Your task to perform on an android device: see tabs open on other devices in the chrome app Image 0: 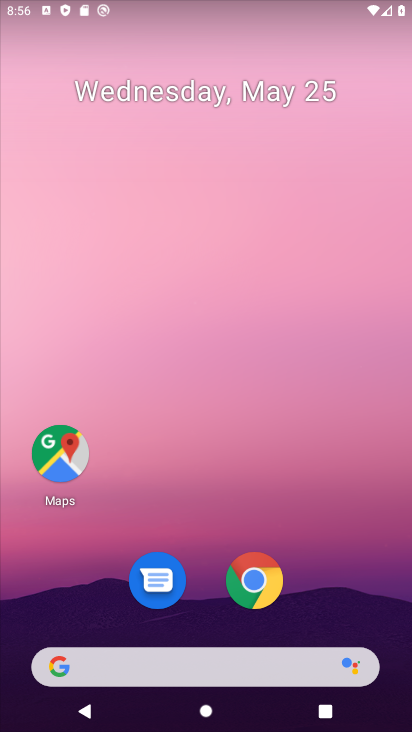
Step 0: press home button
Your task to perform on an android device: see tabs open on other devices in the chrome app Image 1: 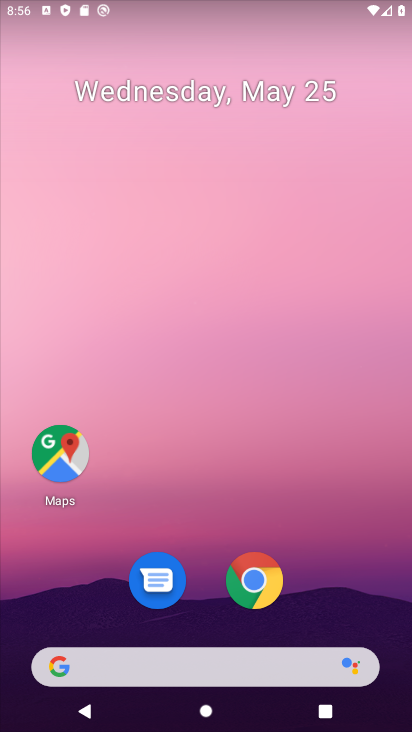
Step 1: click (255, 580)
Your task to perform on an android device: see tabs open on other devices in the chrome app Image 2: 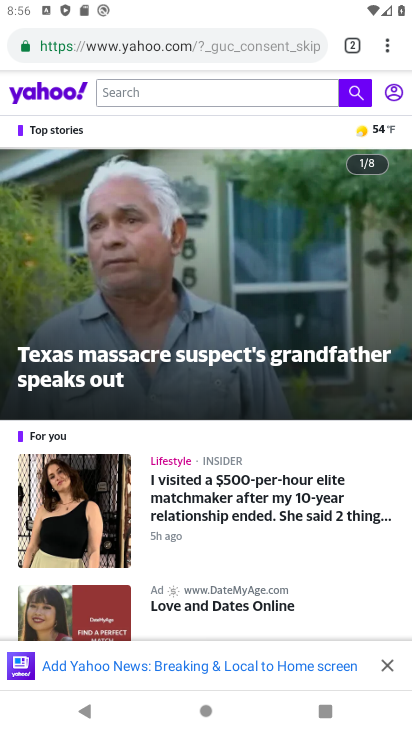
Step 2: click (354, 50)
Your task to perform on an android device: see tabs open on other devices in the chrome app Image 3: 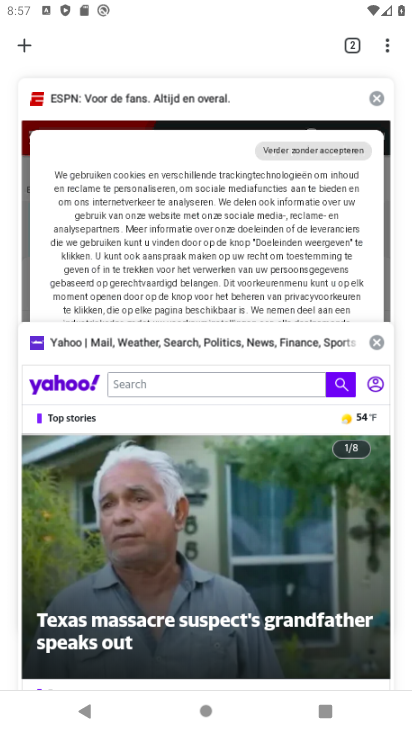
Step 3: task complete